Your task to perform on an android device: change timer sound Image 0: 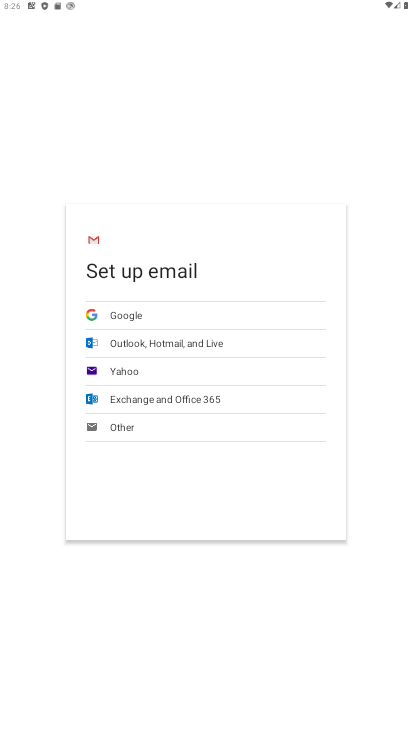
Step 0: press home button
Your task to perform on an android device: change timer sound Image 1: 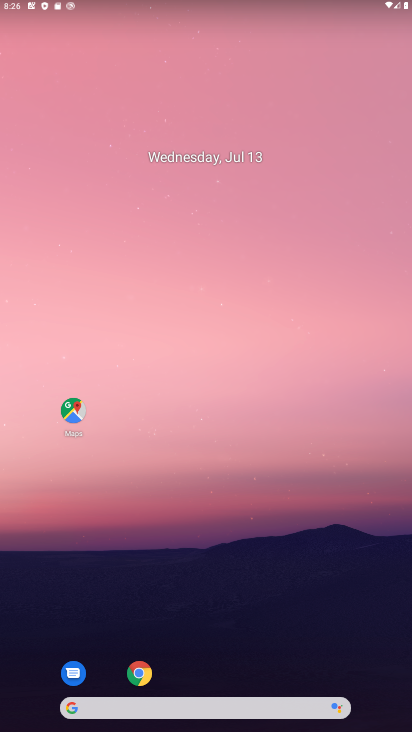
Step 1: drag from (353, 655) to (262, 145)
Your task to perform on an android device: change timer sound Image 2: 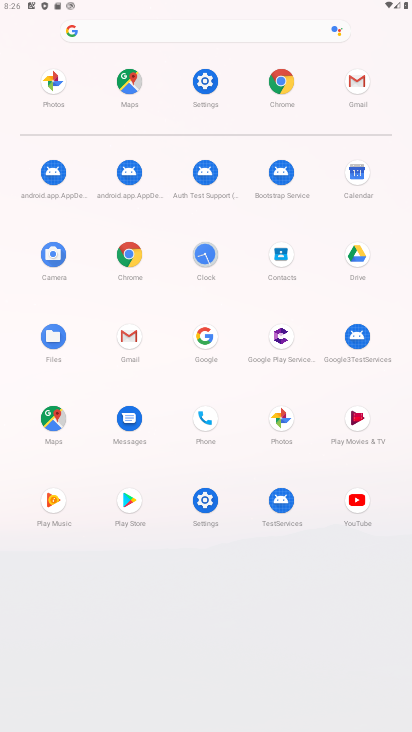
Step 2: click (203, 257)
Your task to perform on an android device: change timer sound Image 3: 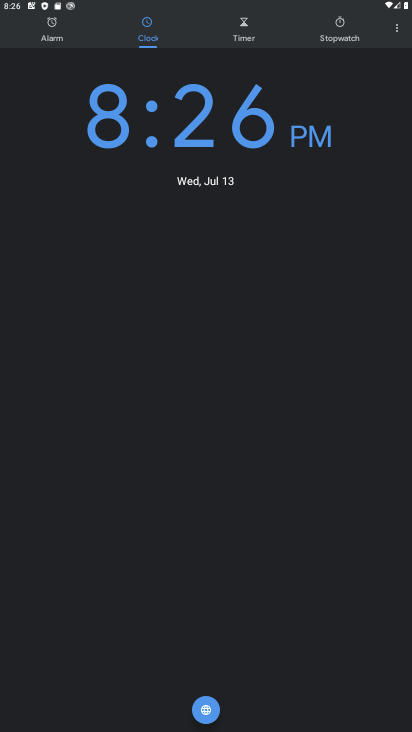
Step 3: click (398, 30)
Your task to perform on an android device: change timer sound Image 4: 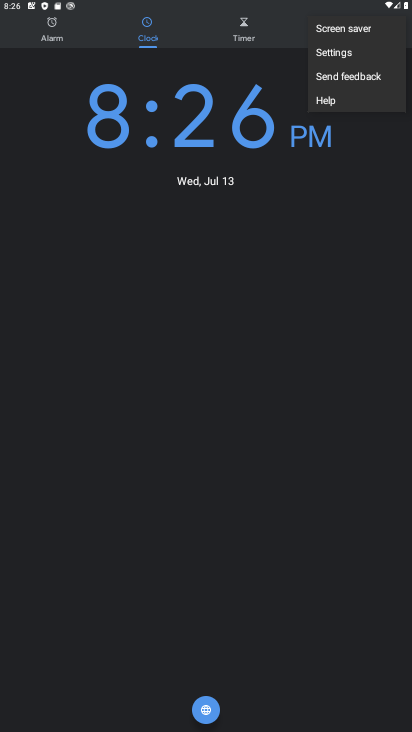
Step 4: click (336, 52)
Your task to perform on an android device: change timer sound Image 5: 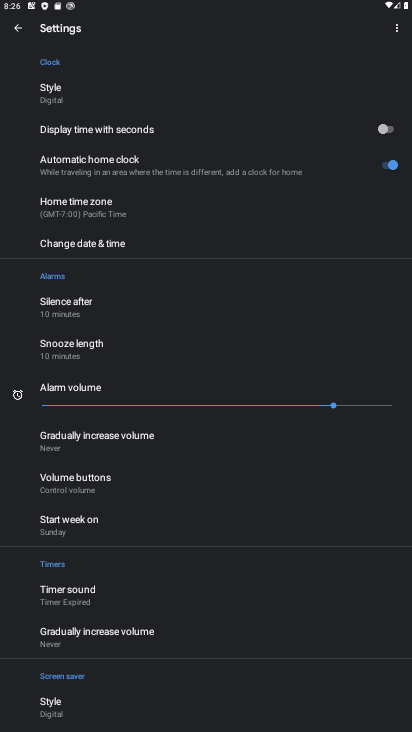
Step 5: click (82, 595)
Your task to perform on an android device: change timer sound Image 6: 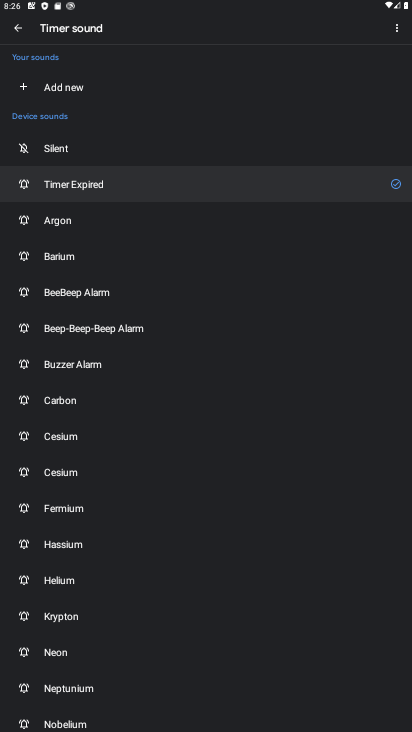
Step 6: click (63, 232)
Your task to perform on an android device: change timer sound Image 7: 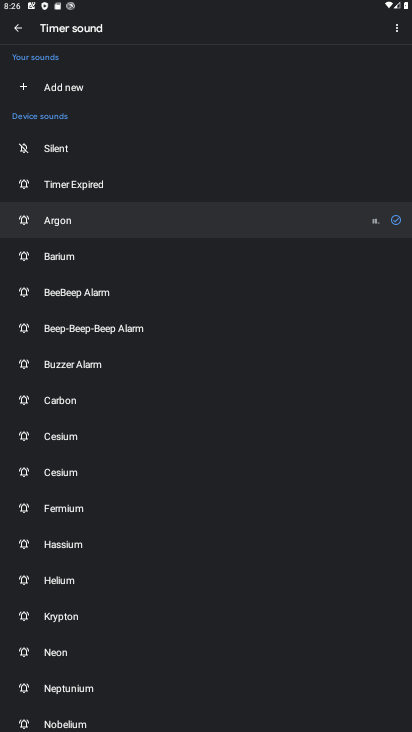
Step 7: task complete